Your task to perform on an android device: turn on bluetooth scan Image 0: 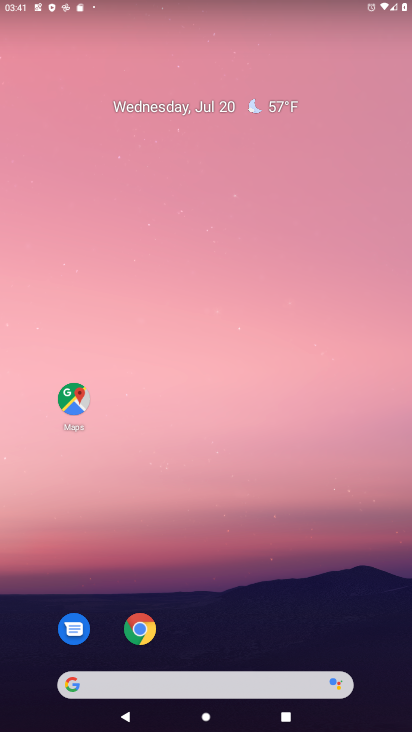
Step 0: drag from (372, 648) to (328, 129)
Your task to perform on an android device: turn on bluetooth scan Image 1: 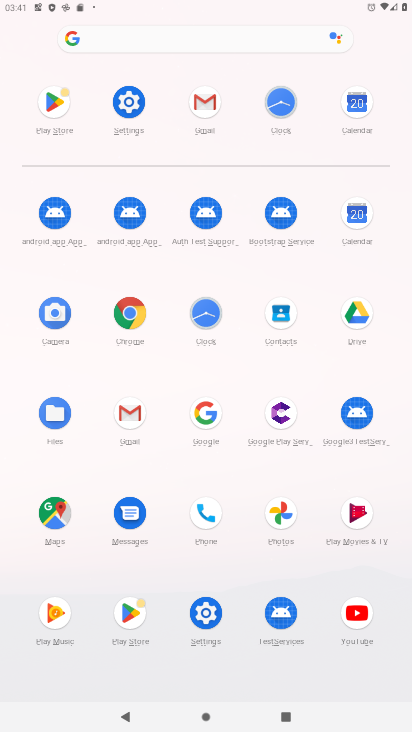
Step 1: click (204, 612)
Your task to perform on an android device: turn on bluetooth scan Image 2: 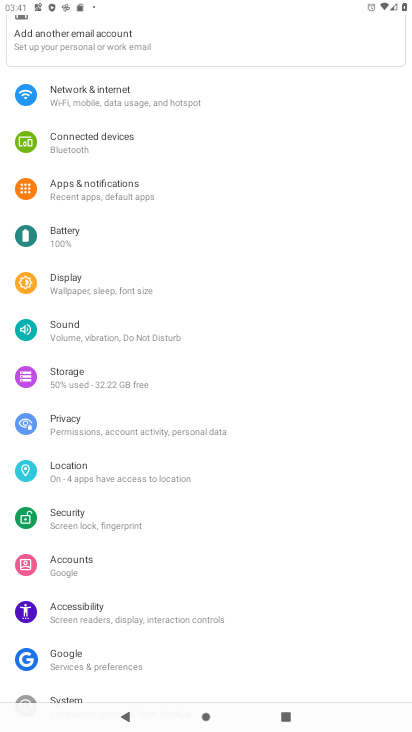
Step 2: click (83, 478)
Your task to perform on an android device: turn on bluetooth scan Image 3: 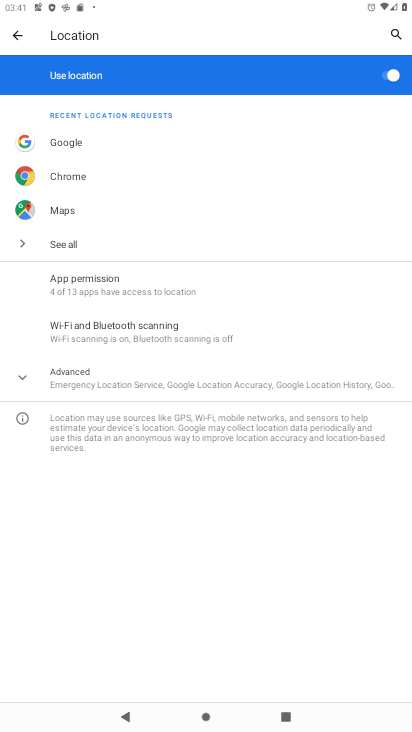
Step 3: click (88, 316)
Your task to perform on an android device: turn on bluetooth scan Image 4: 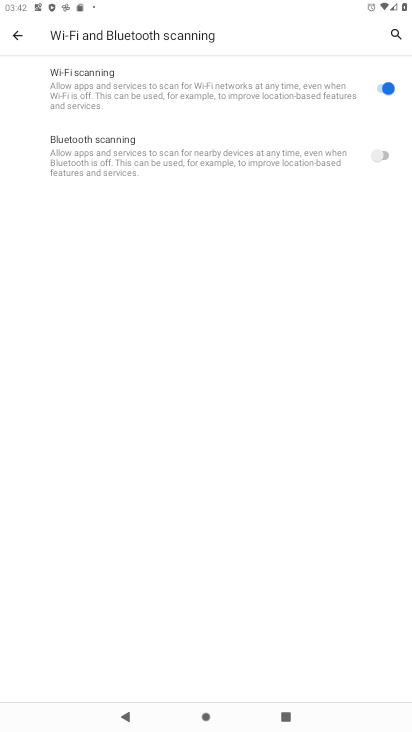
Step 4: click (385, 154)
Your task to perform on an android device: turn on bluetooth scan Image 5: 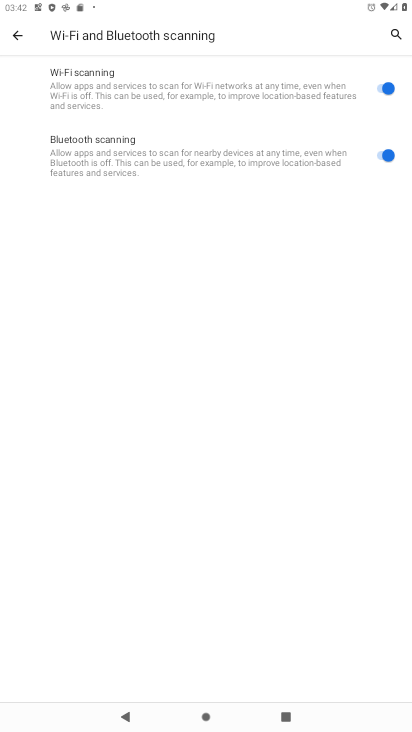
Step 5: task complete